Your task to perform on an android device: Search for pizza restaurants on Maps Image 0: 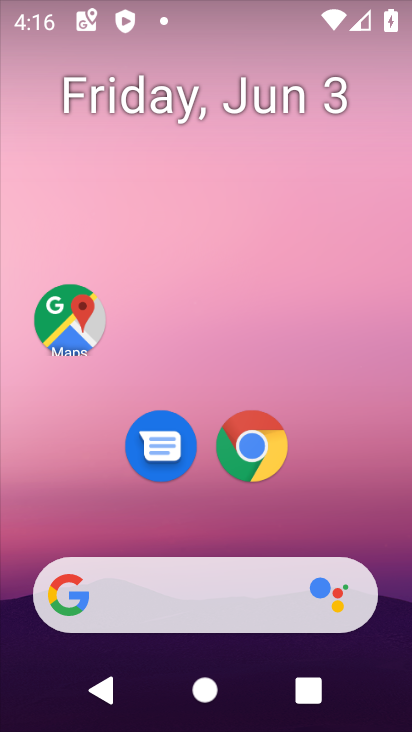
Step 0: task complete